Your task to perform on an android device: open the mobile data screen to see how much data has been used Image 0: 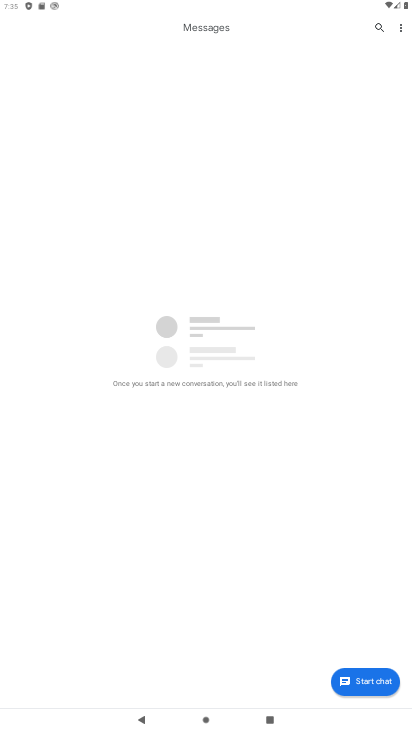
Step 0: press home button
Your task to perform on an android device: open the mobile data screen to see how much data has been used Image 1: 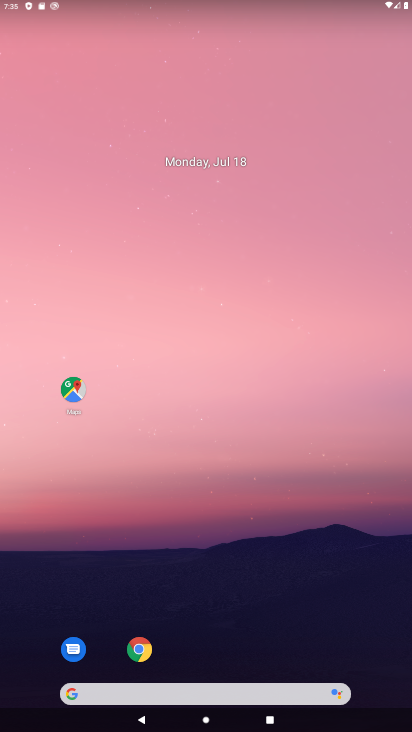
Step 1: drag from (329, 587) to (296, 38)
Your task to perform on an android device: open the mobile data screen to see how much data has been used Image 2: 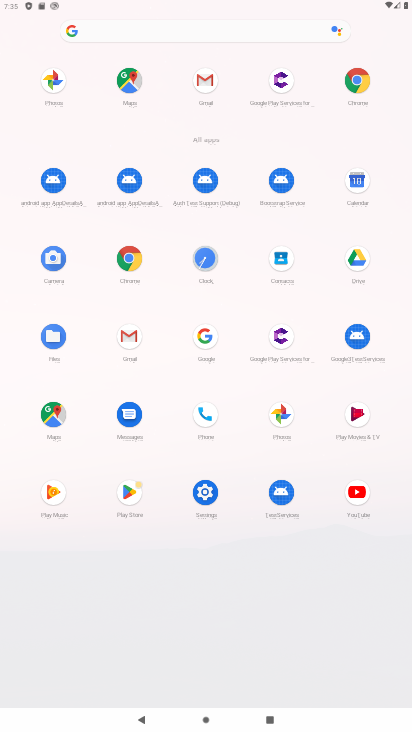
Step 2: click (210, 492)
Your task to perform on an android device: open the mobile data screen to see how much data has been used Image 3: 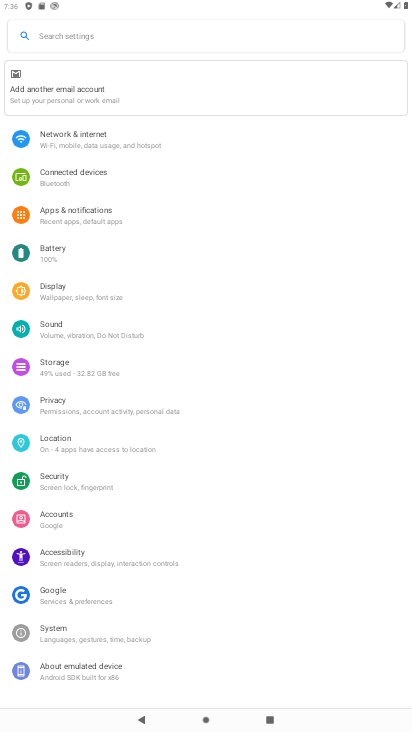
Step 3: click (102, 139)
Your task to perform on an android device: open the mobile data screen to see how much data has been used Image 4: 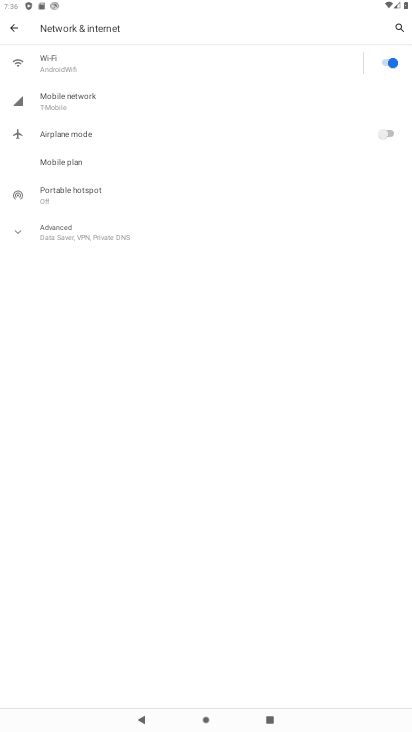
Step 4: click (95, 108)
Your task to perform on an android device: open the mobile data screen to see how much data has been used Image 5: 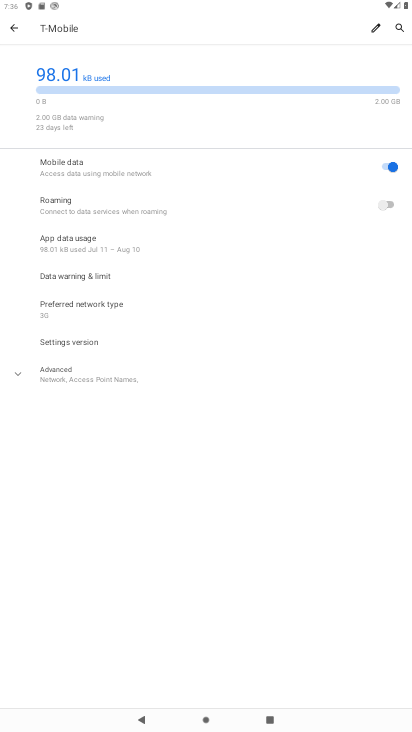
Step 5: task complete